Your task to perform on an android device: Empty the shopping cart on ebay. Add logitech g903 to the cart on ebay, then select checkout. Image 0: 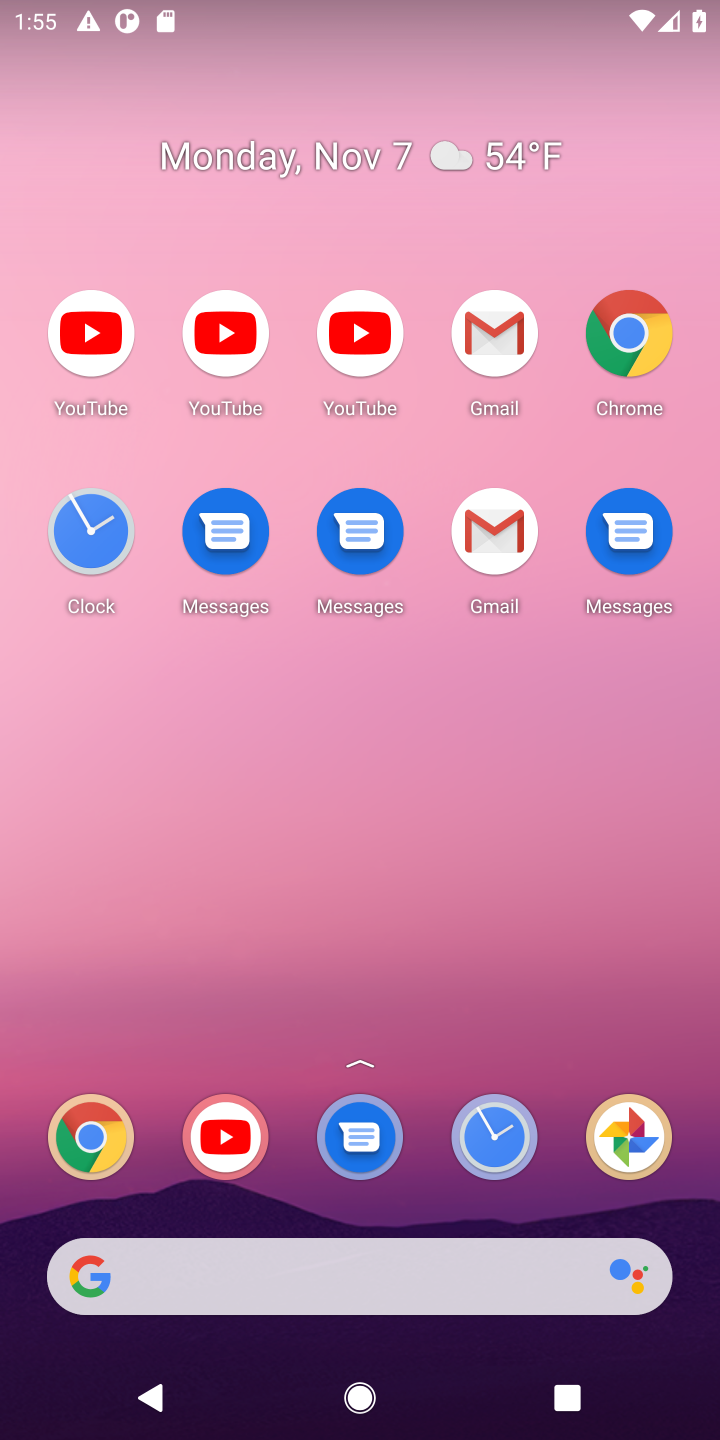
Step 0: drag from (416, 1210) to (421, 332)
Your task to perform on an android device: Empty the shopping cart on ebay. Add logitech g903 to the cart on ebay, then select checkout. Image 1: 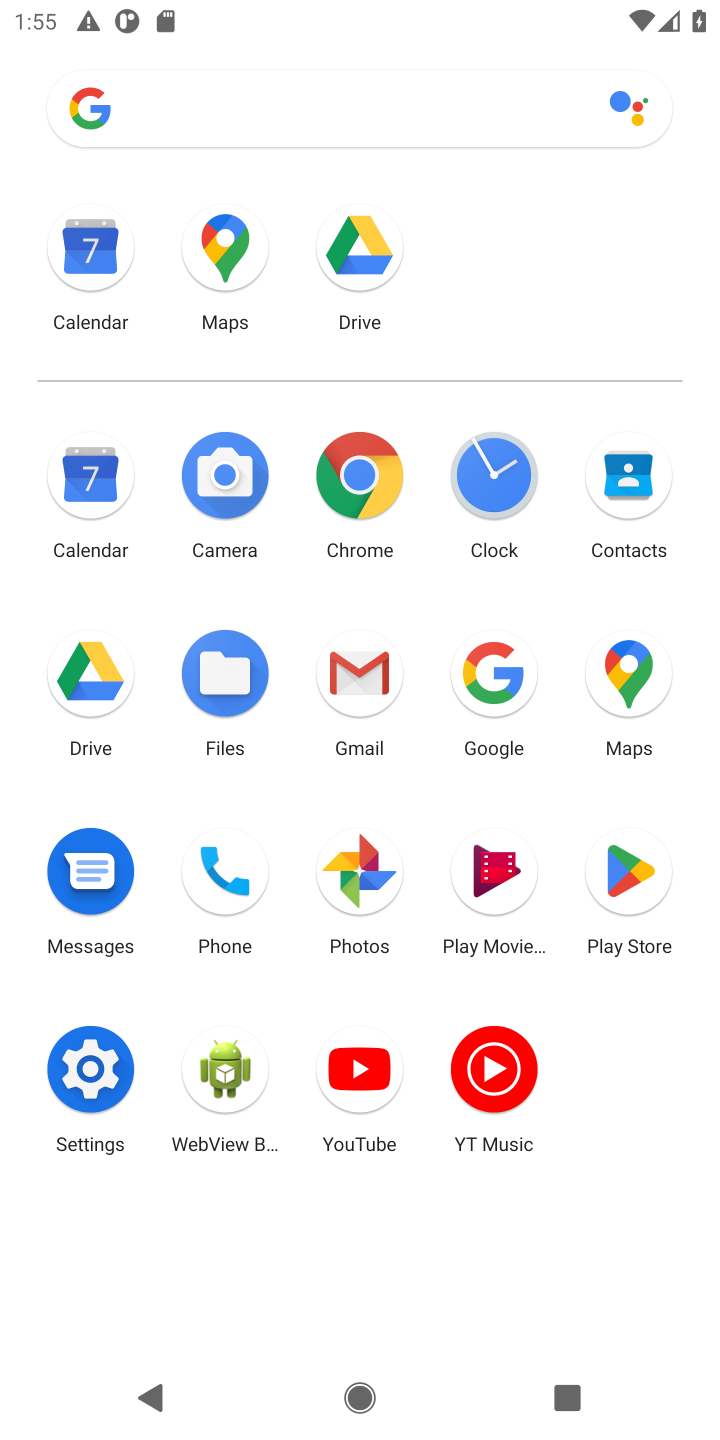
Step 1: click (370, 474)
Your task to perform on an android device: Empty the shopping cart on ebay. Add logitech g903 to the cart on ebay, then select checkout. Image 2: 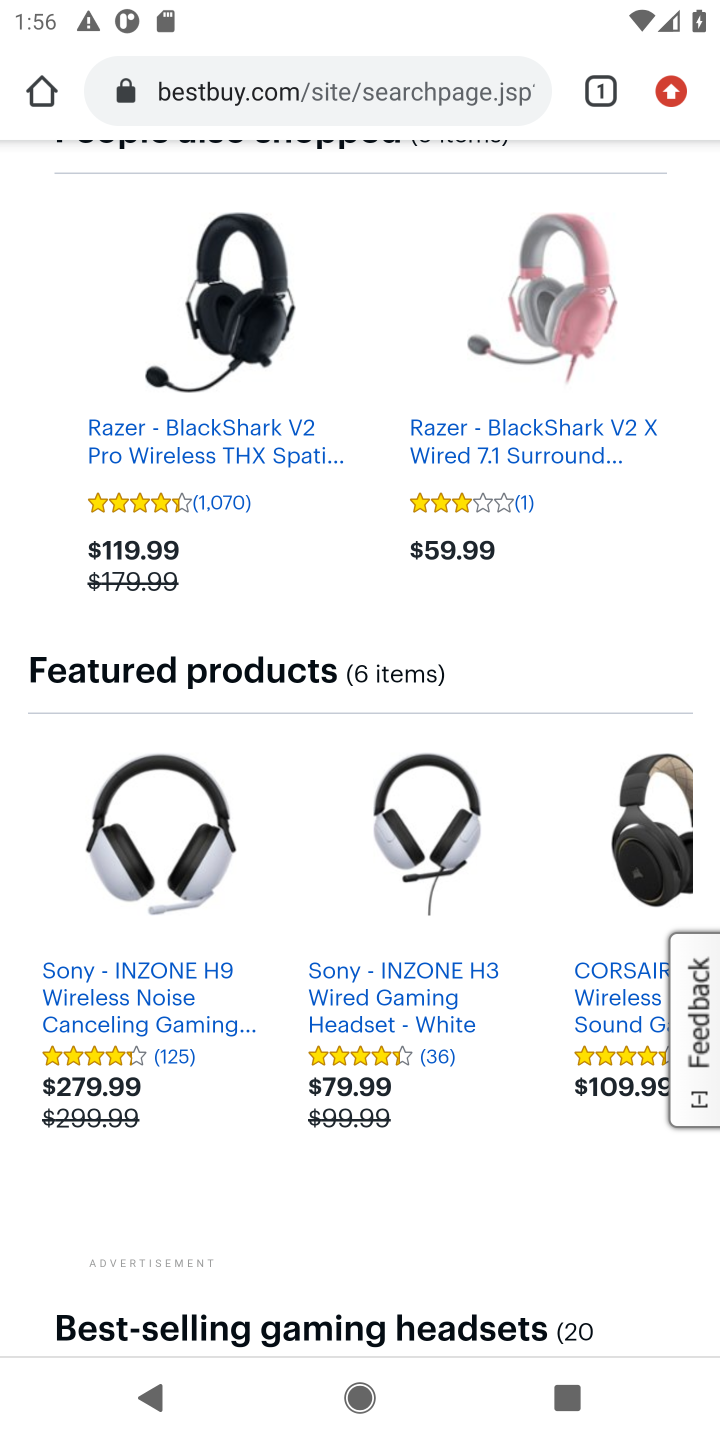
Step 2: click (345, 94)
Your task to perform on an android device: Empty the shopping cart on ebay. Add logitech g903 to the cart on ebay, then select checkout. Image 3: 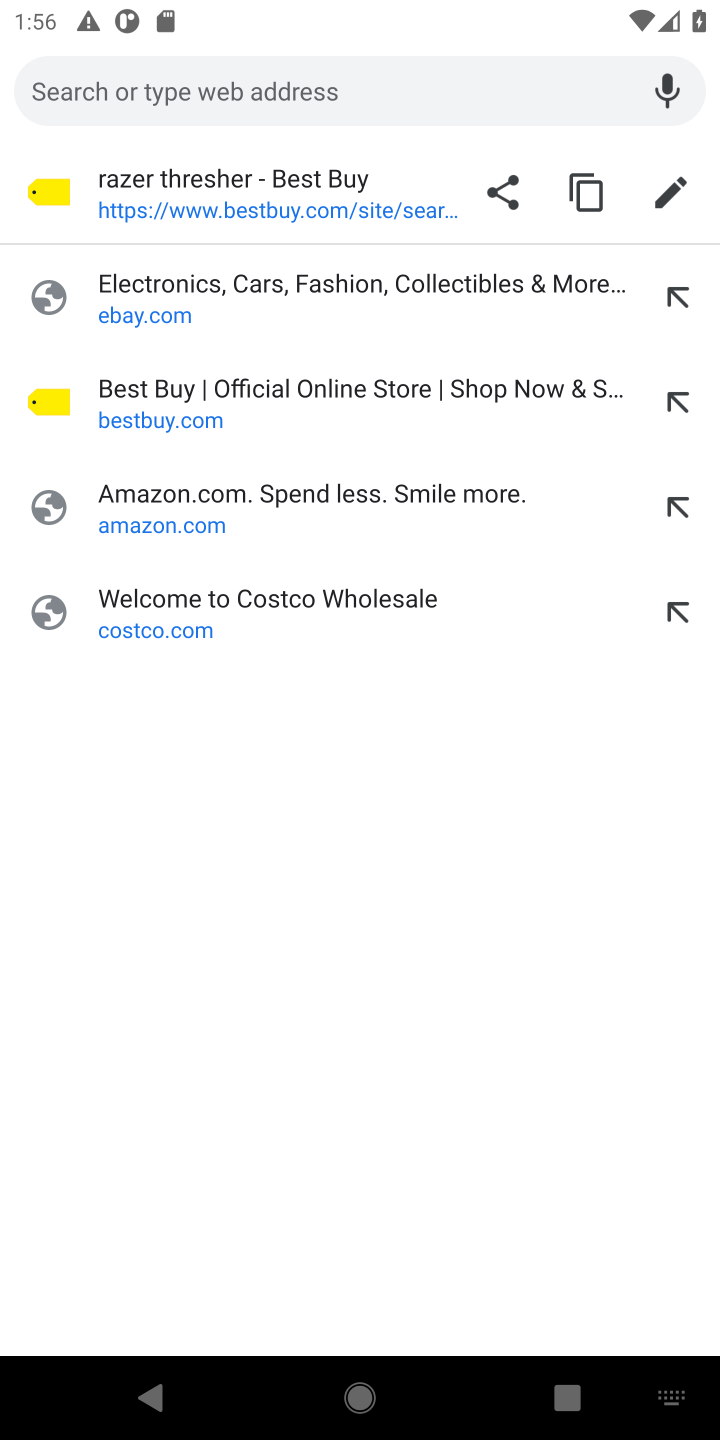
Step 3: type "ebay.com"
Your task to perform on an android device: Empty the shopping cart on ebay. Add logitech g903 to the cart on ebay, then select checkout. Image 4: 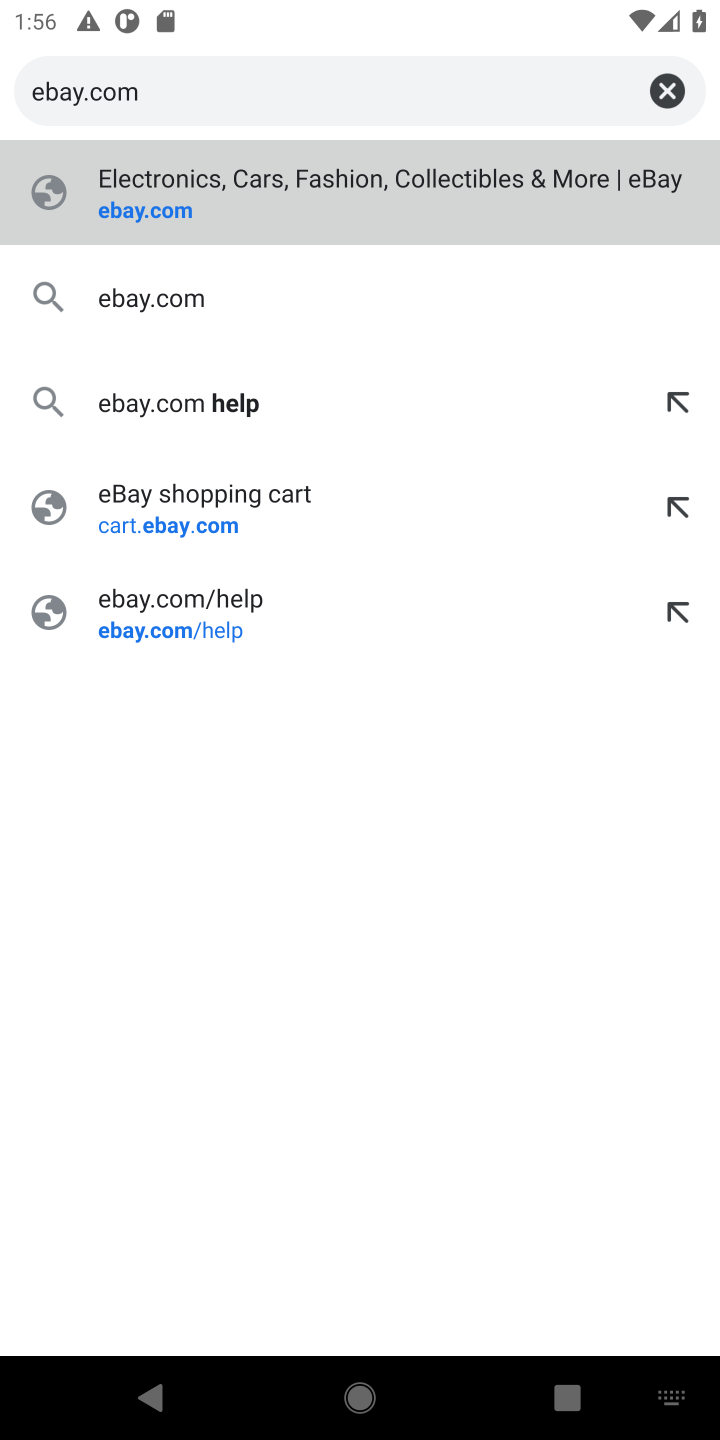
Step 4: press enter
Your task to perform on an android device: Empty the shopping cart on ebay. Add logitech g903 to the cart on ebay, then select checkout. Image 5: 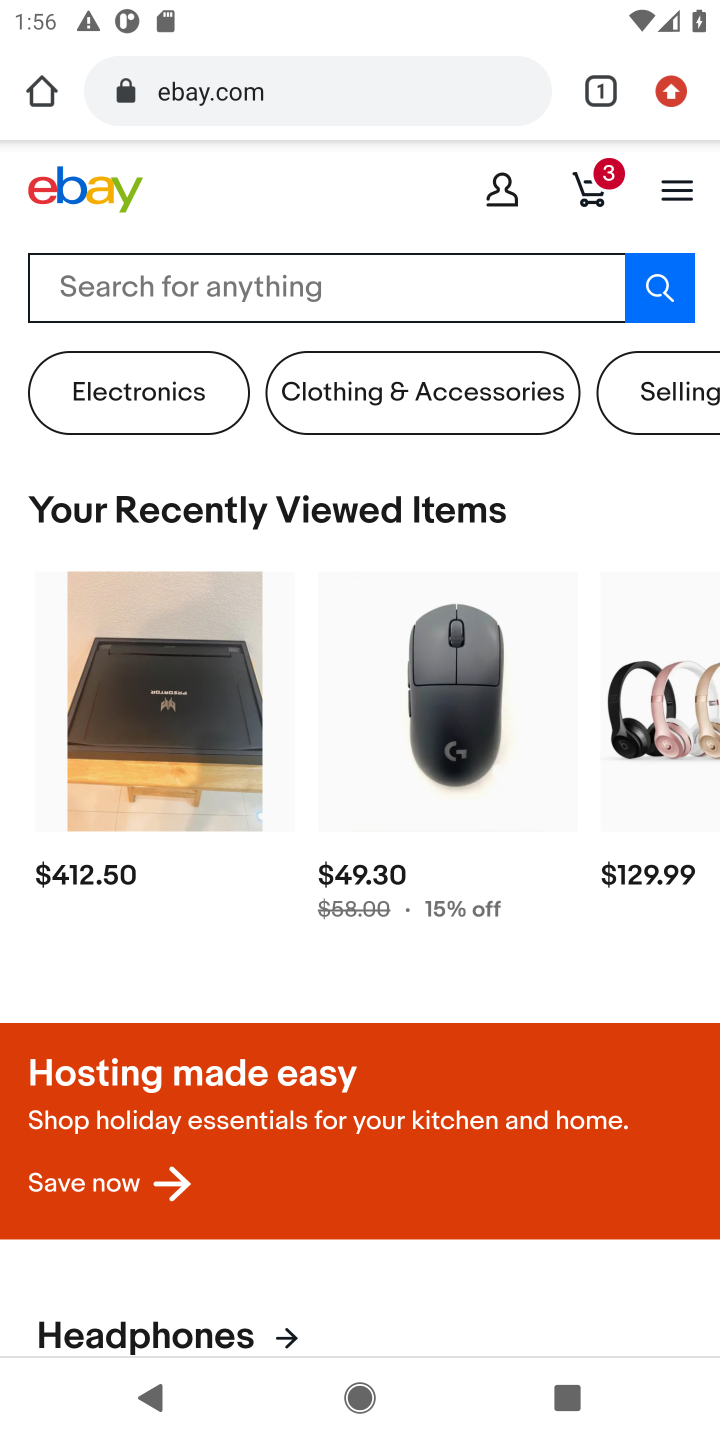
Step 5: click (606, 166)
Your task to perform on an android device: Empty the shopping cart on ebay. Add logitech g903 to the cart on ebay, then select checkout. Image 6: 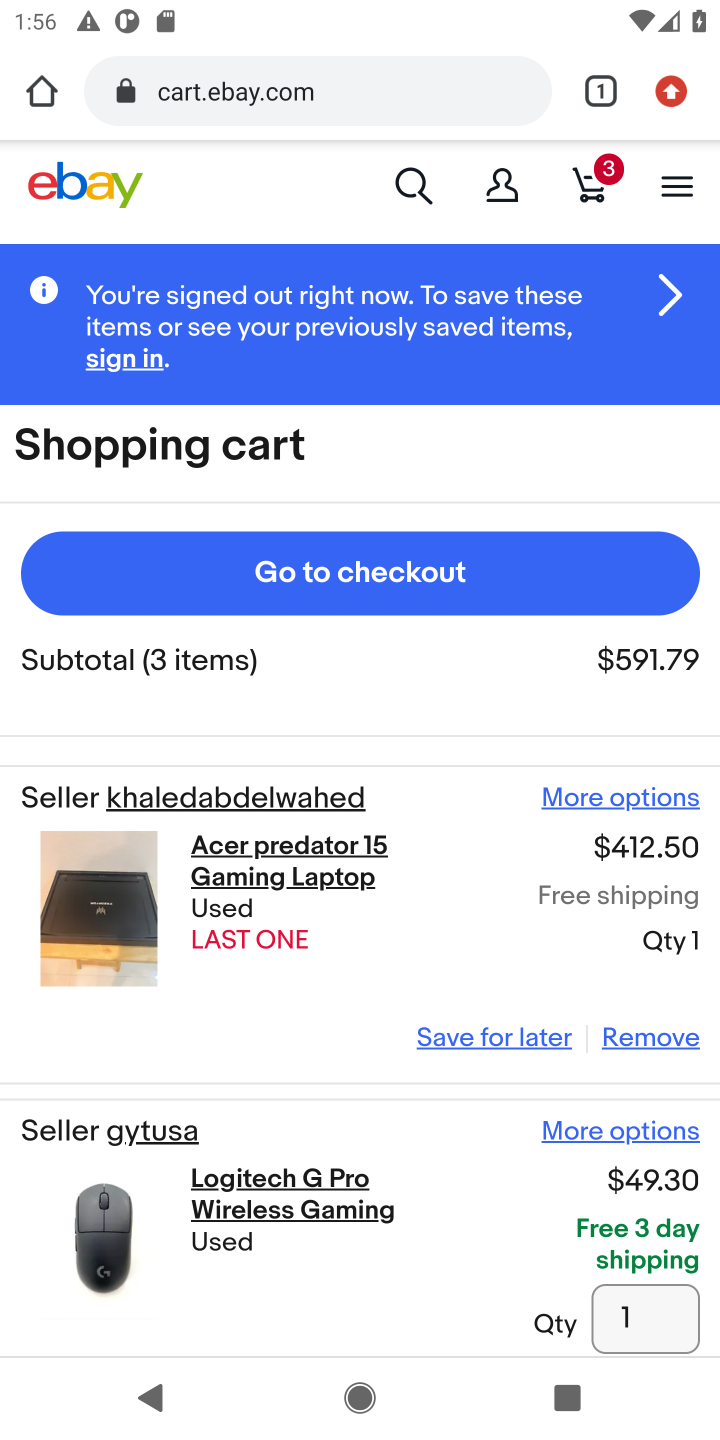
Step 6: click (631, 1028)
Your task to perform on an android device: Empty the shopping cart on ebay. Add logitech g903 to the cart on ebay, then select checkout. Image 7: 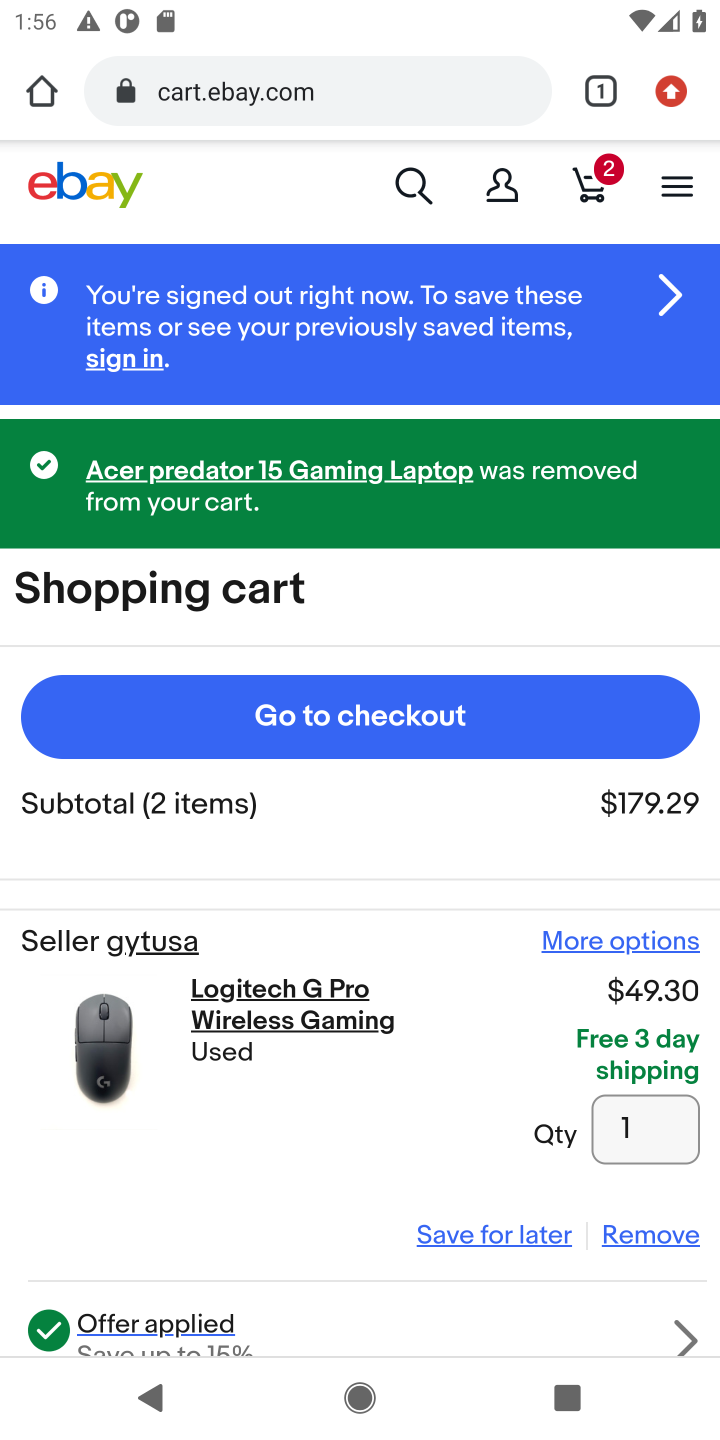
Step 7: click (659, 1229)
Your task to perform on an android device: Empty the shopping cart on ebay. Add logitech g903 to the cart on ebay, then select checkout. Image 8: 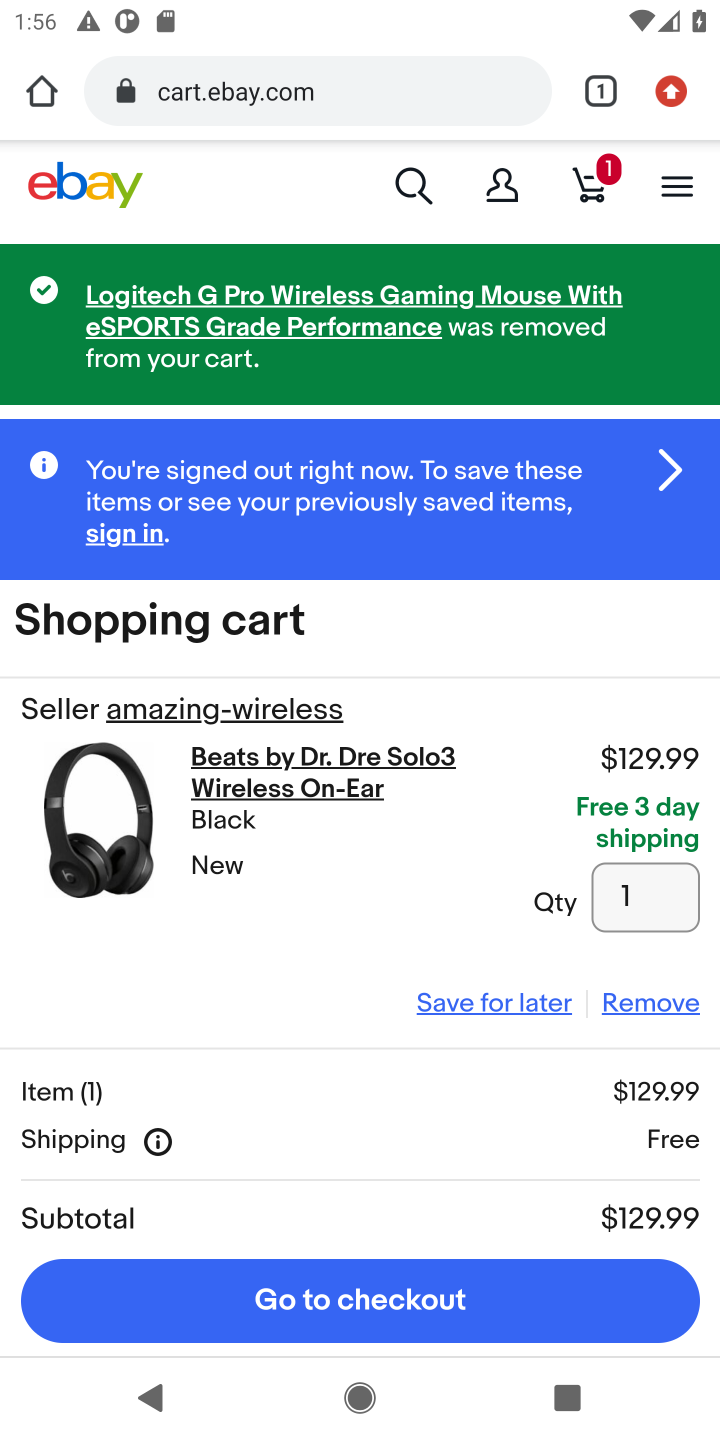
Step 8: drag from (431, 1186) to (466, 823)
Your task to perform on an android device: Empty the shopping cart on ebay. Add logitech g903 to the cart on ebay, then select checkout. Image 9: 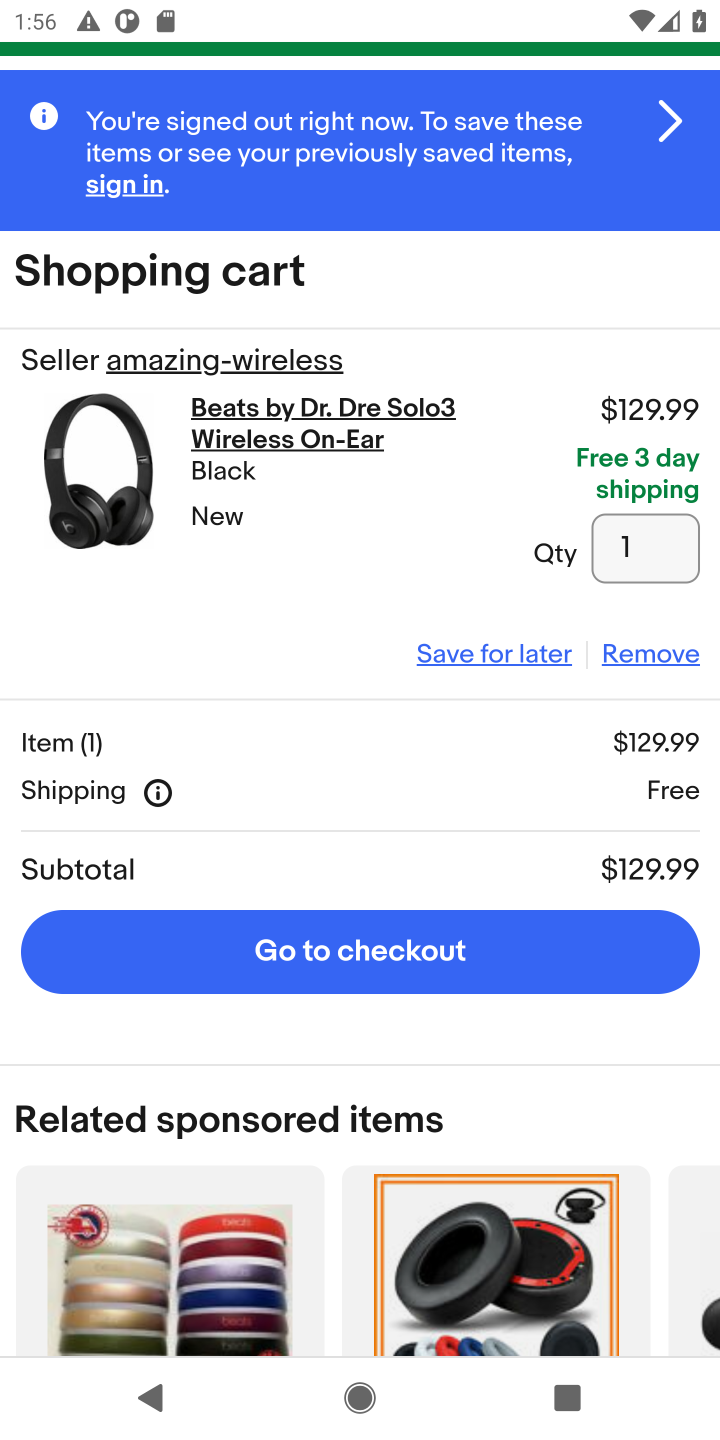
Step 9: click (664, 648)
Your task to perform on an android device: Empty the shopping cart on ebay. Add logitech g903 to the cart on ebay, then select checkout. Image 10: 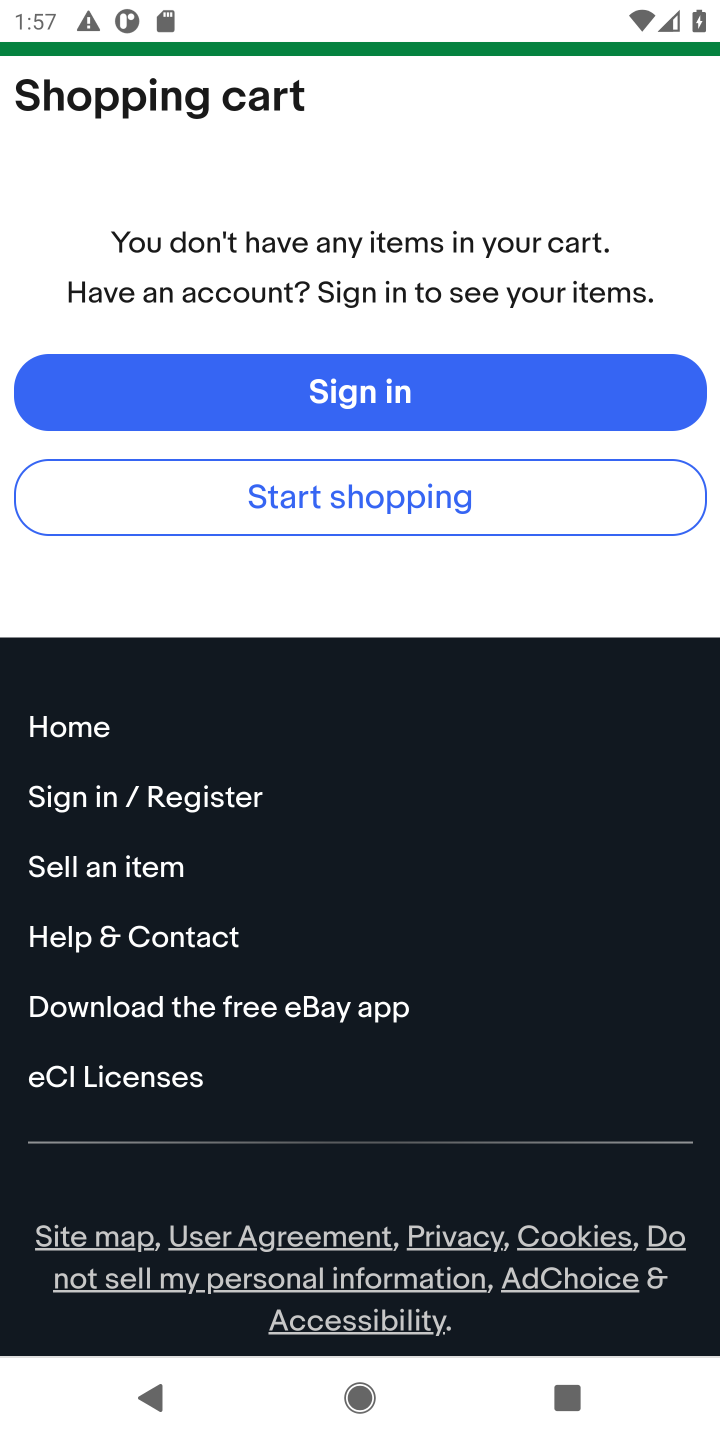
Step 10: click (416, 510)
Your task to perform on an android device: Empty the shopping cart on ebay. Add logitech g903 to the cart on ebay, then select checkout. Image 11: 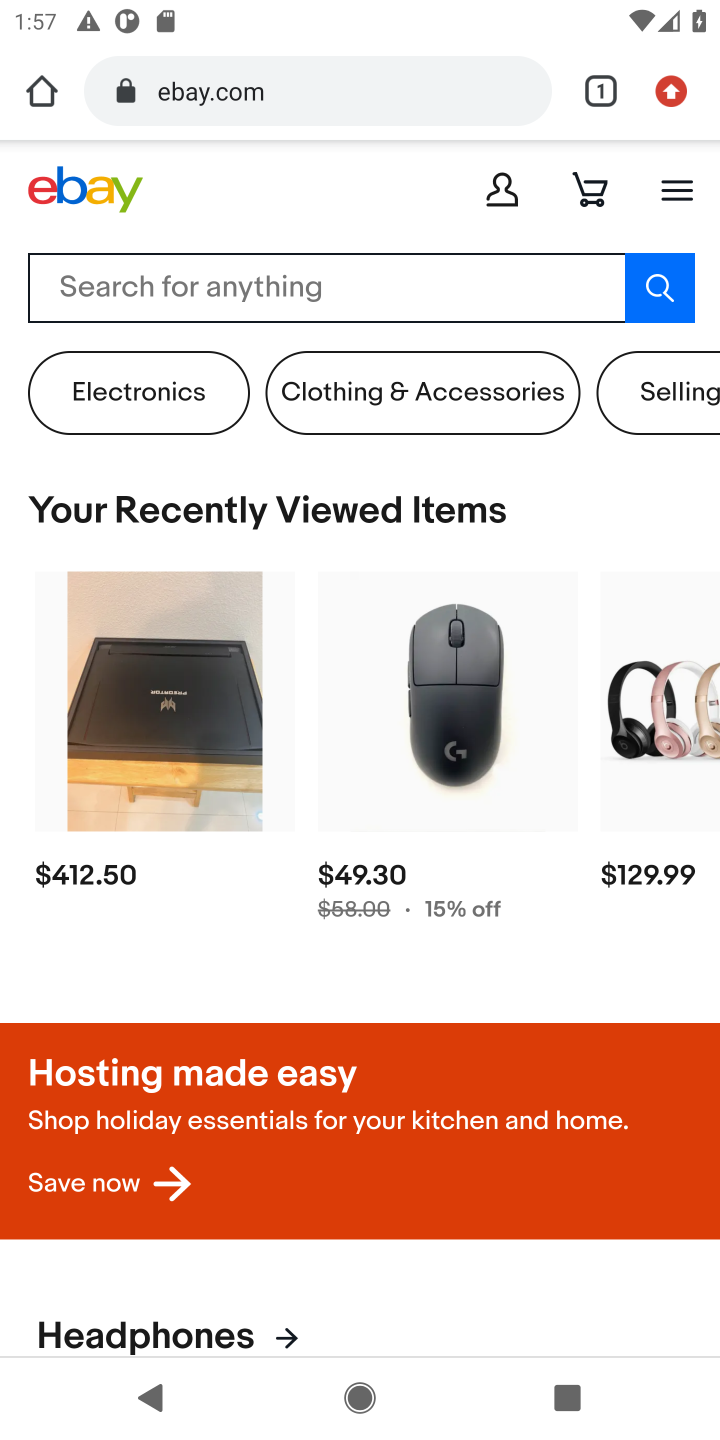
Step 11: click (343, 287)
Your task to perform on an android device: Empty the shopping cart on ebay. Add logitech g903 to the cart on ebay, then select checkout. Image 12: 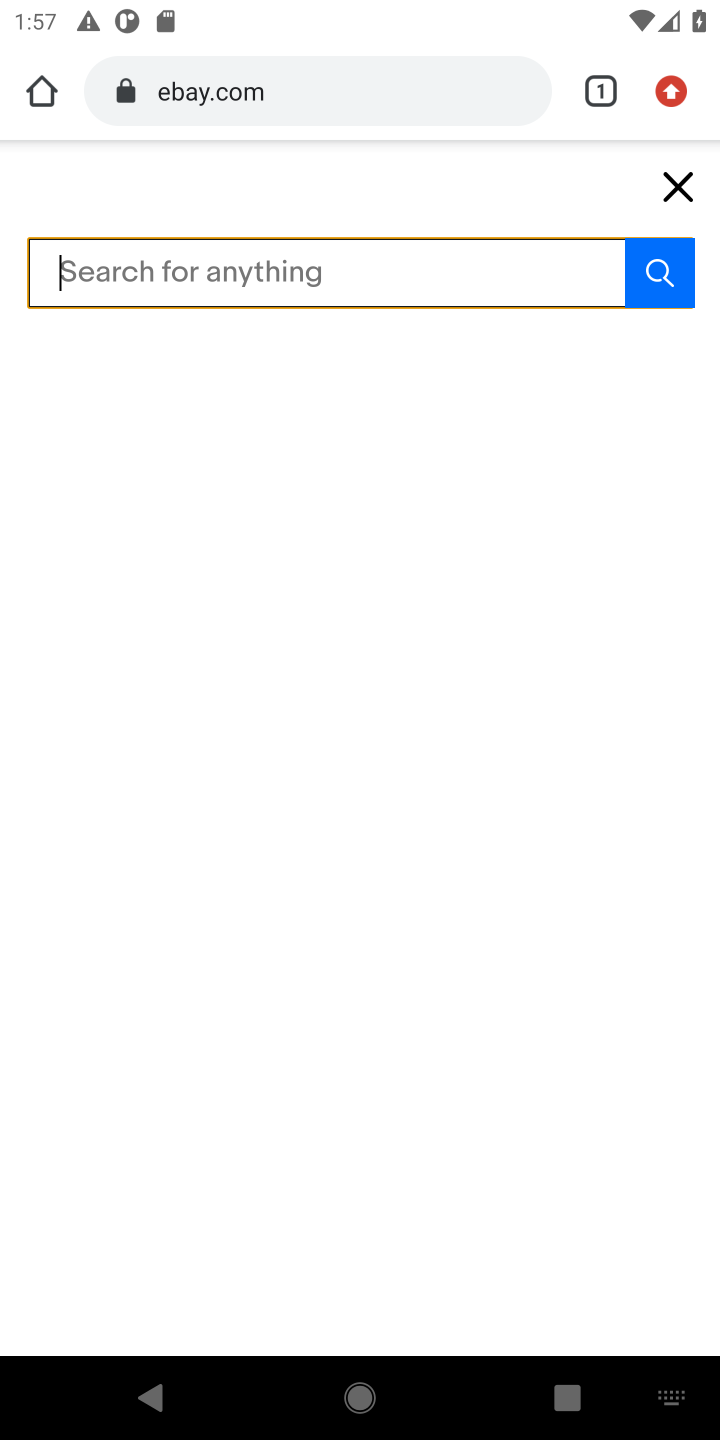
Step 12: type "logitech g903"
Your task to perform on an android device: Empty the shopping cart on ebay. Add logitech g903 to the cart on ebay, then select checkout. Image 13: 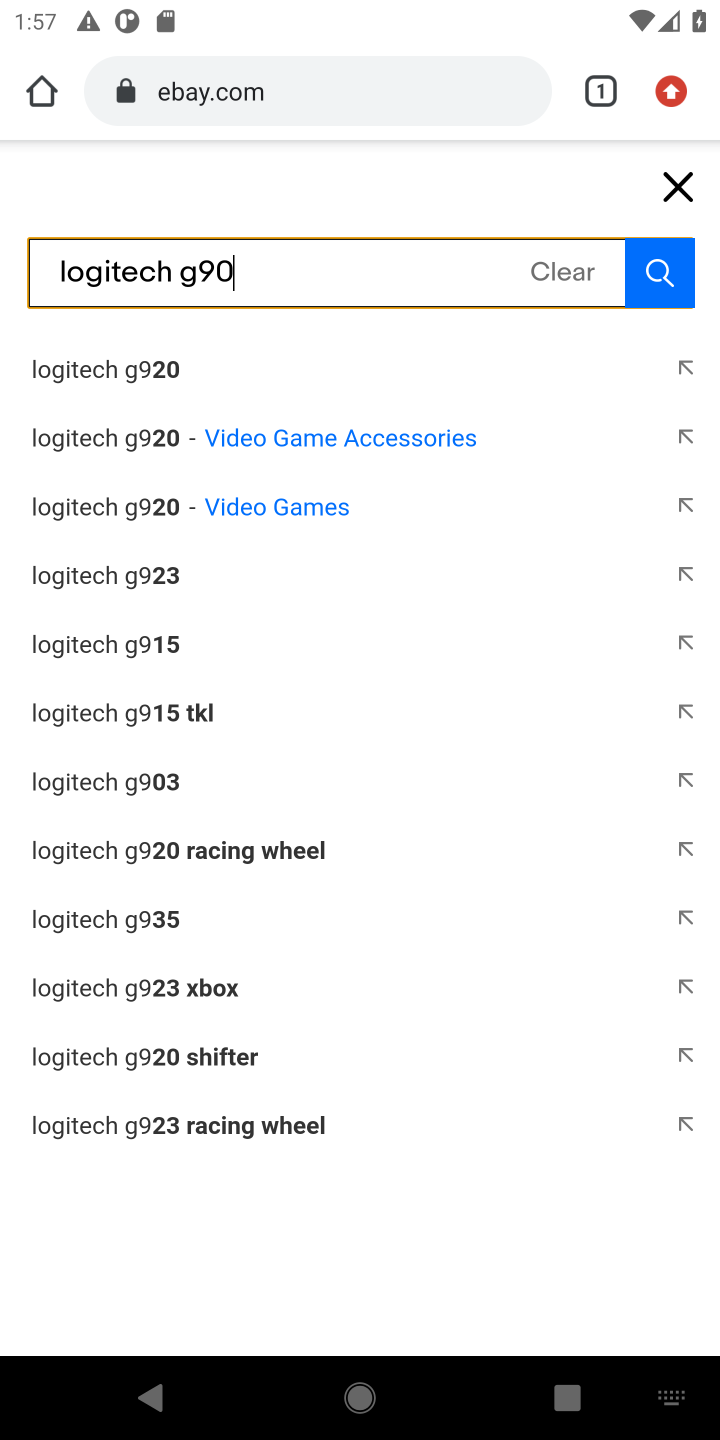
Step 13: press enter
Your task to perform on an android device: Empty the shopping cart on ebay. Add logitech g903 to the cart on ebay, then select checkout. Image 14: 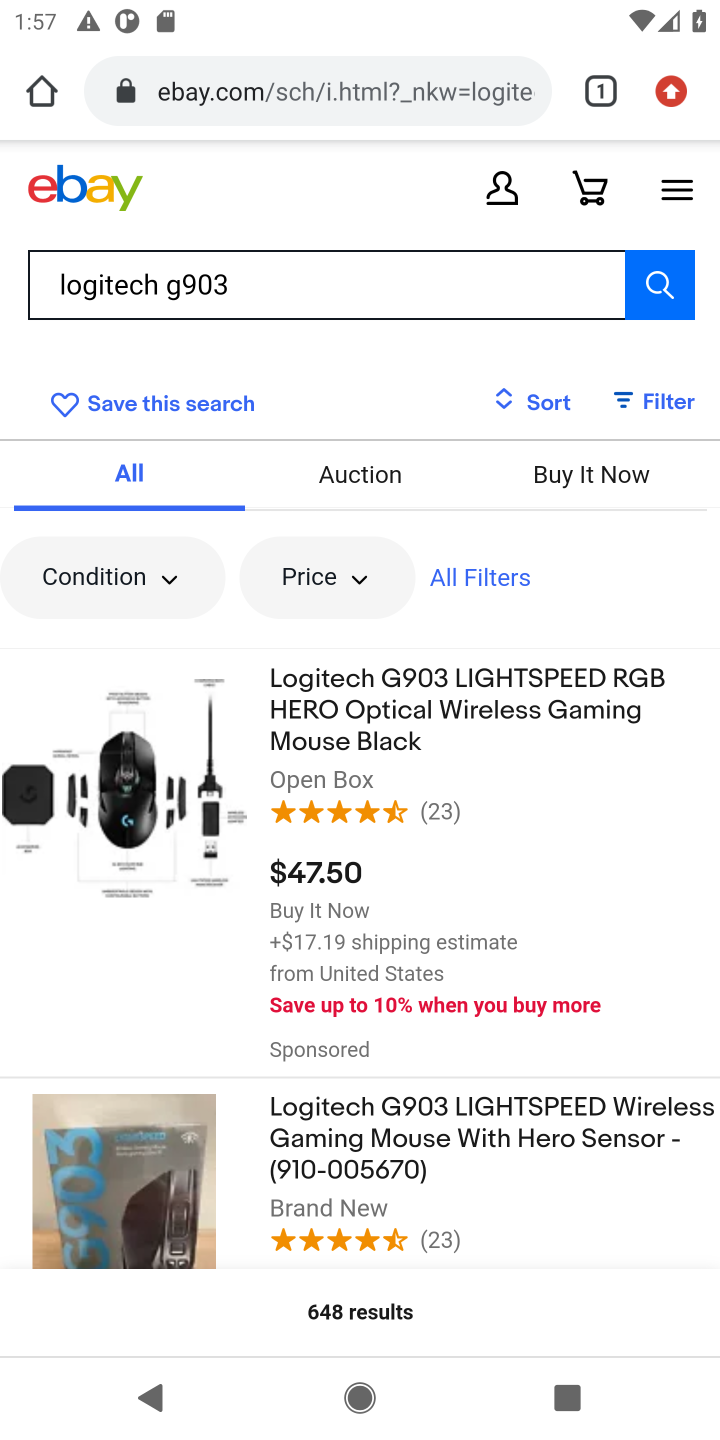
Step 14: click (328, 702)
Your task to perform on an android device: Empty the shopping cart on ebay. Add logitech g903 to the cart on ebay, then select checkout. Image 15: 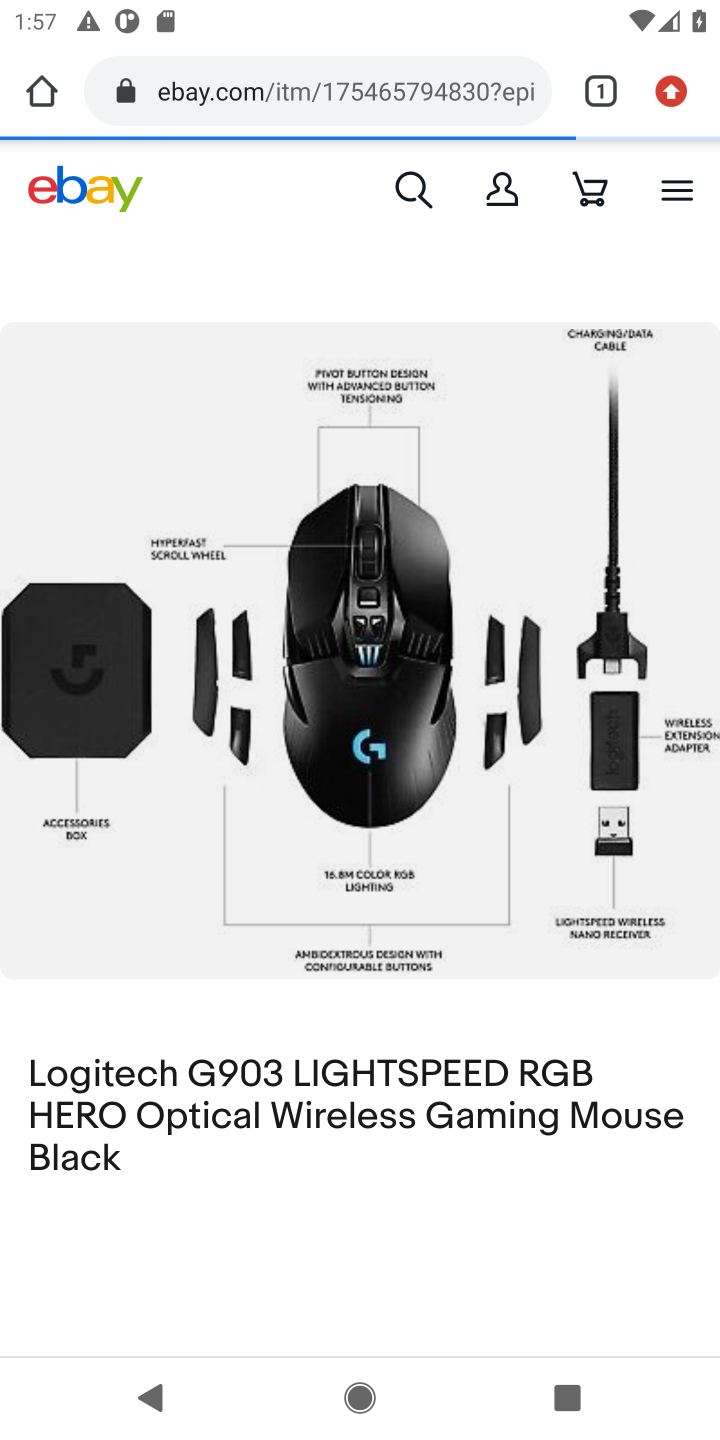
Step 15: drag from (529, 1222) to (524, 278)
Your task to perform on an android device: Empty the shopping cart on ebay. Add logitech g903 to the cart on ebay, then select checkout. Image 16: 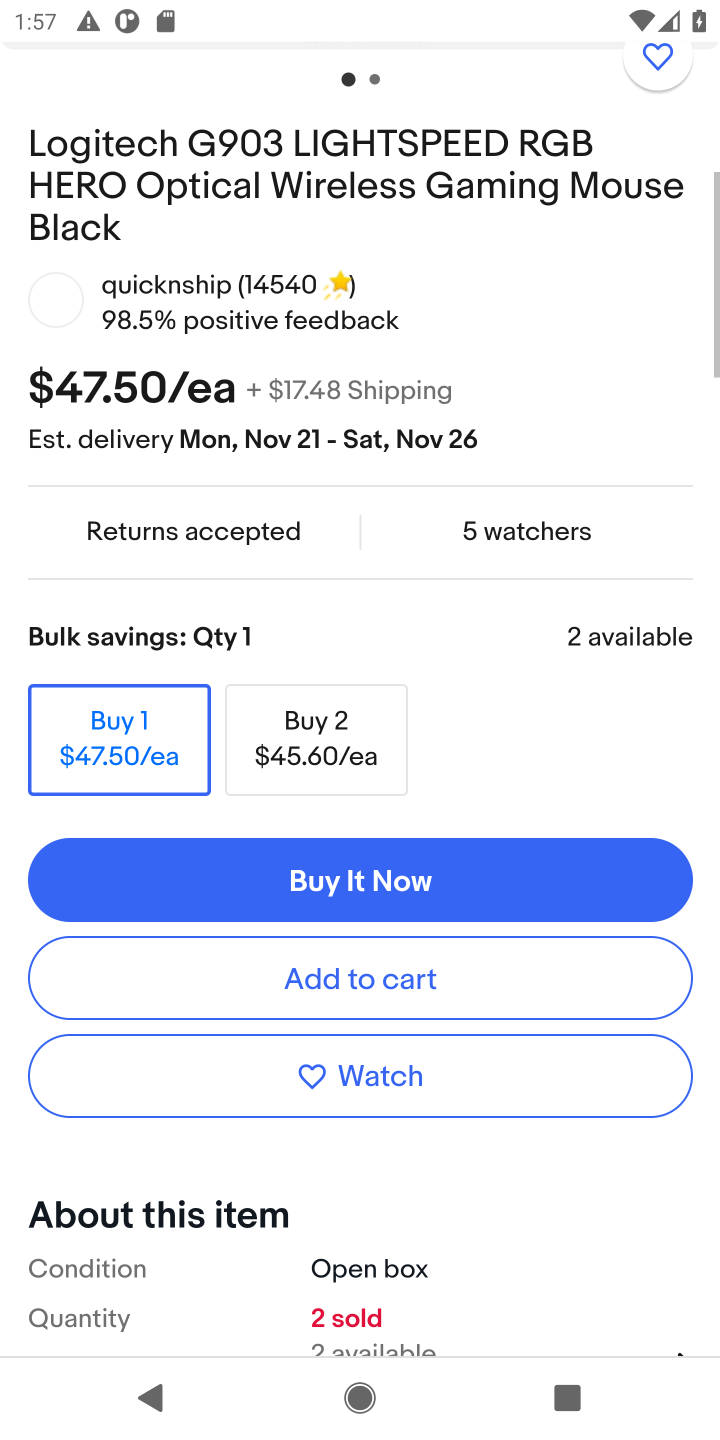
Step 16: drag from (573, 1202) to (550, 513)
Your task to perform on an android device: Empty the shopping cart on ebay. Add logitech g903 to the cart on ebay, then select checkout. Image 17: 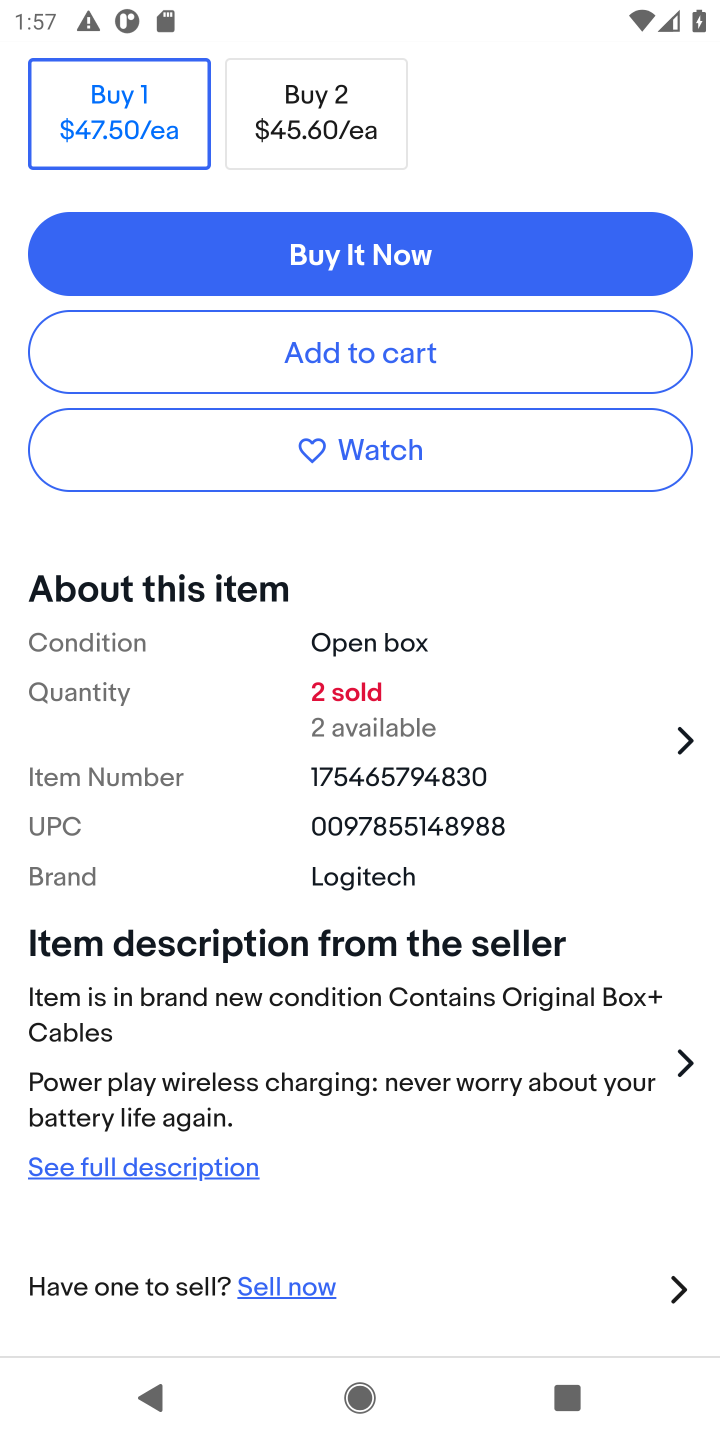
Step 17: click (428, 359)
Your task to perform on an android device: Empty the shopping cart on ebay. Add logitech g903 to the cart on ebay, then select checkout. Image 18: 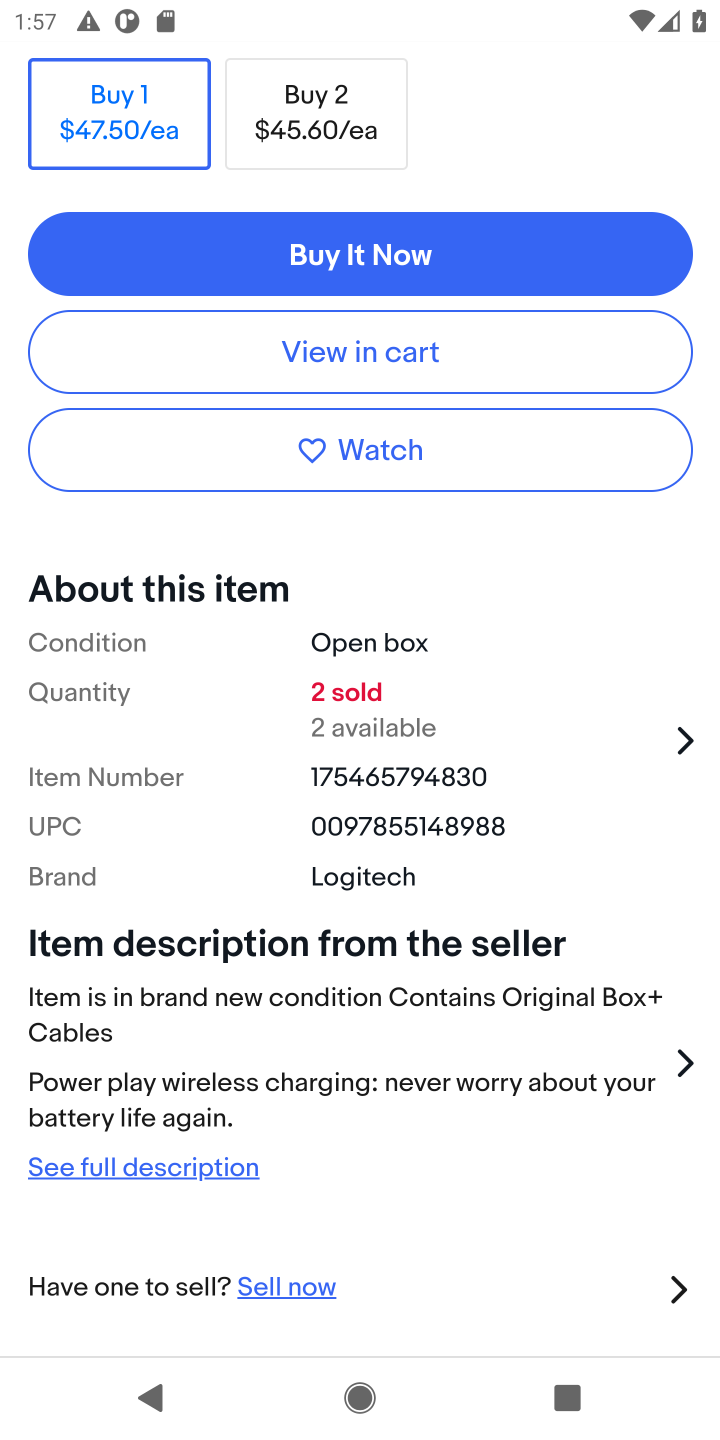
Step 18: click (471, 362)
Your task to perform on an android device: Empty the shopping cart on ebay. Add logitech g903 to the cart on ebay, then select checkout. Image 19: 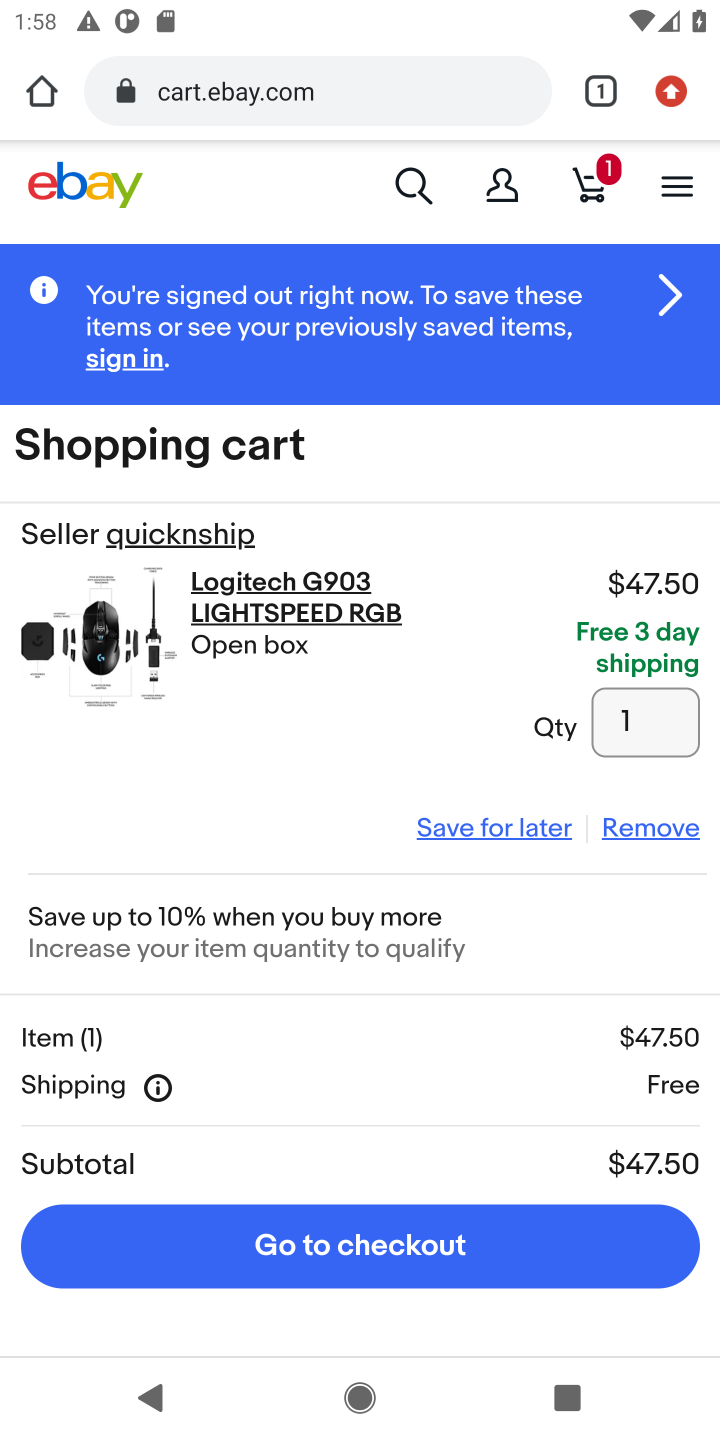
Step 19: click (499, 1256)
Your task to perform on an android device: Empty the shopping cart on ebay. Add logitech g903 to the cart on ebay, then select checkout. Image 20: 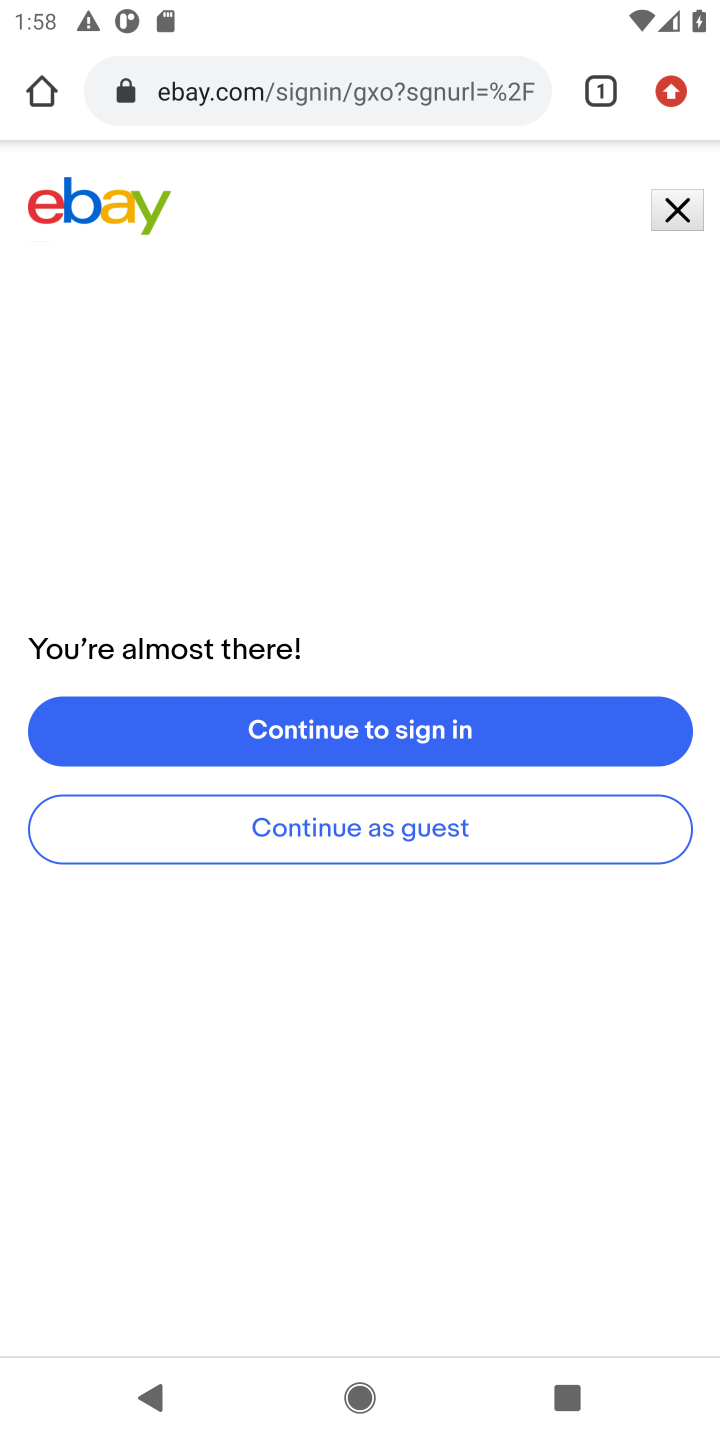
Step 20: task complete